Your task to perform on an android device: Check the news Image 0: 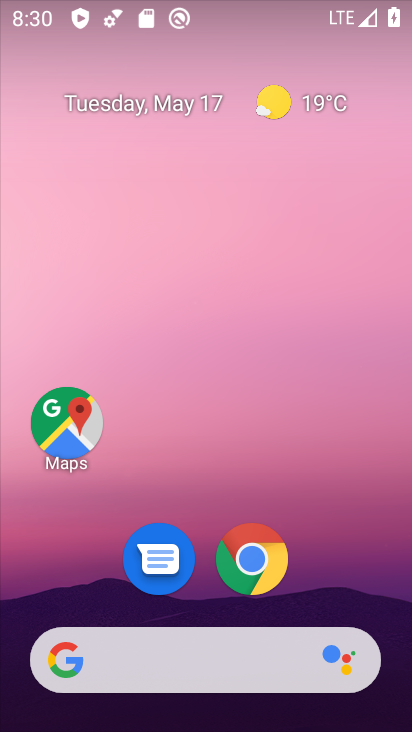
Step 0: drag from (225, 611) to (406, 490)
Your task to perform on an android device: Check the news Image 1: 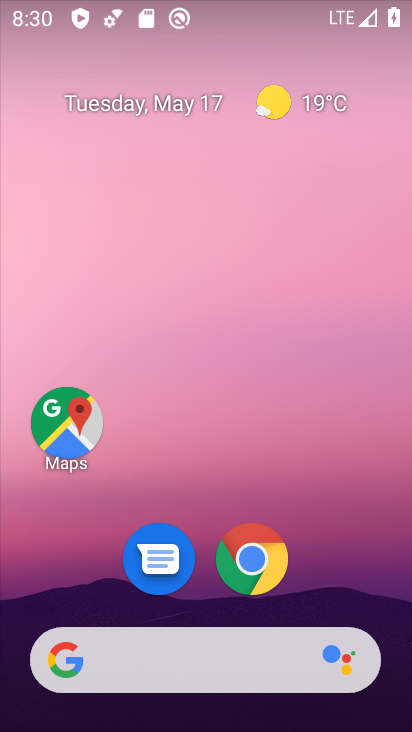
Step 1: drag from (224, 630) to (198, 228)
Your task to perform on an android device: Check the news Image 2: 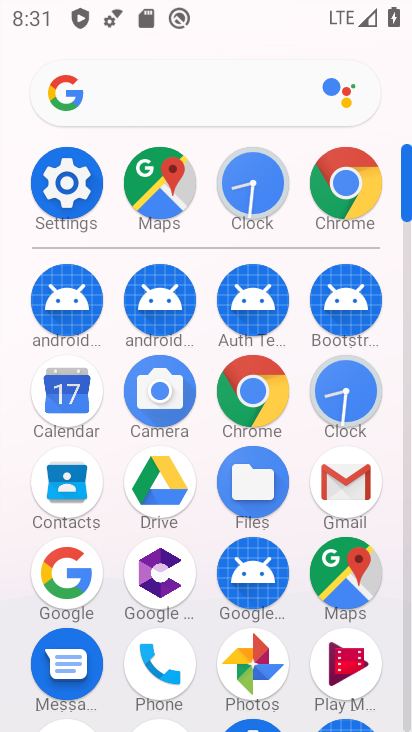
Step 2: click (153, 76)
Your task to perform on an android device: Check the news Image 3: 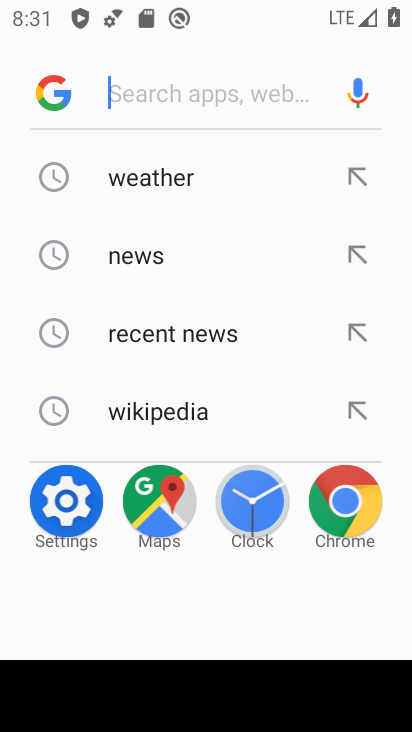
Step 3: click (164, 268)
Your task to perform on an android device: Check the news Image 4: 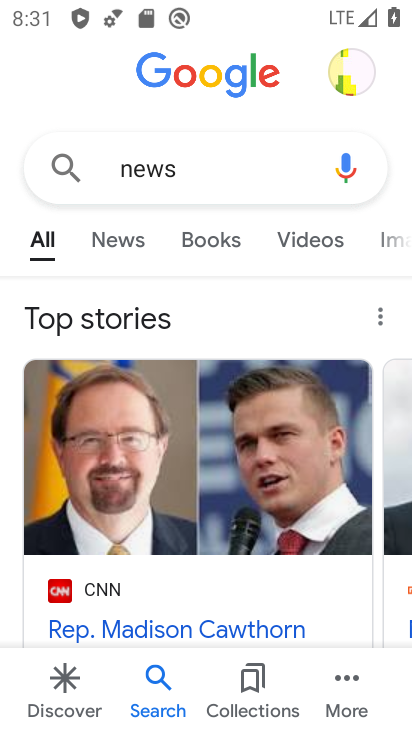
Step 4: task complete